Your task to perform on an android device: choose inbox layout in the gmail app Image 0: 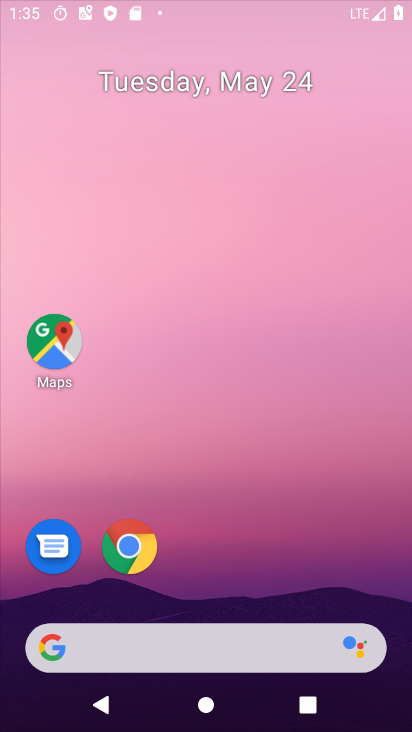
Step 0: drag from (215, 615) to (405, 253)
Your task to perform on an android device: choose inbox layout in the gmail app Image 1: 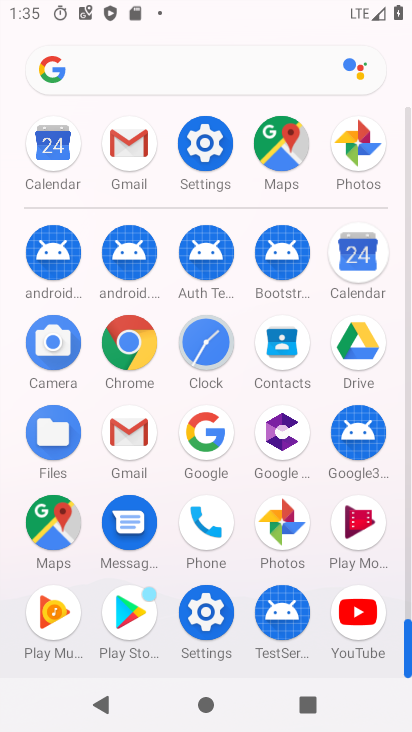
Step 1: click (121, 433)
Your task to perform on an android device: choose inbox layout in the gmail app Image 2: 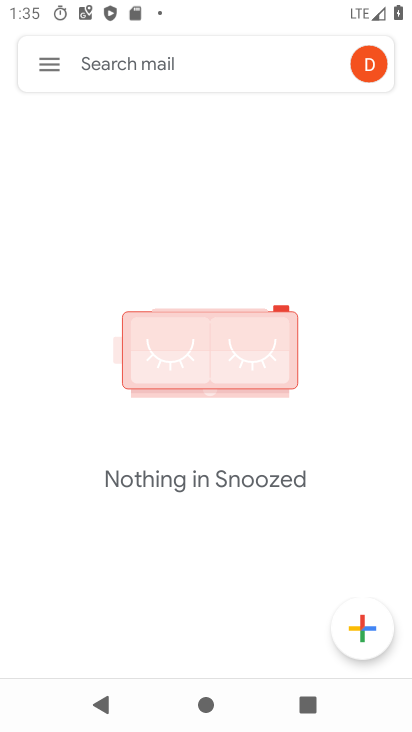
Step 2: click (43, 66)
Your task to perform on an android device: choose inbox layout in the gmail app Image 3: 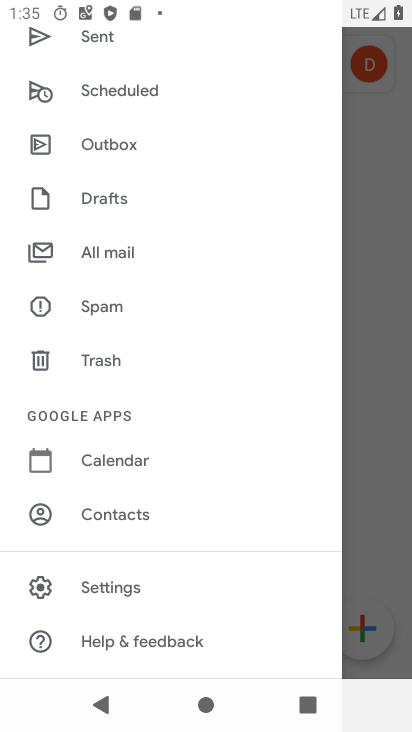
Step 3: drag from (142, 632) to (187, 135)
Your task to perform on an android device: choose inbox layout in the gmail app Image 4: 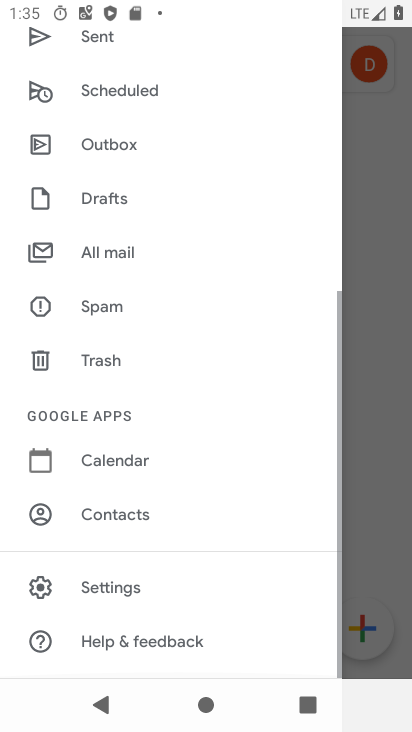
Step 4: drag from (169, 301) to (245, 653)
Your task to perform on an android device: choose inbox layout in the gmail app Image 5: 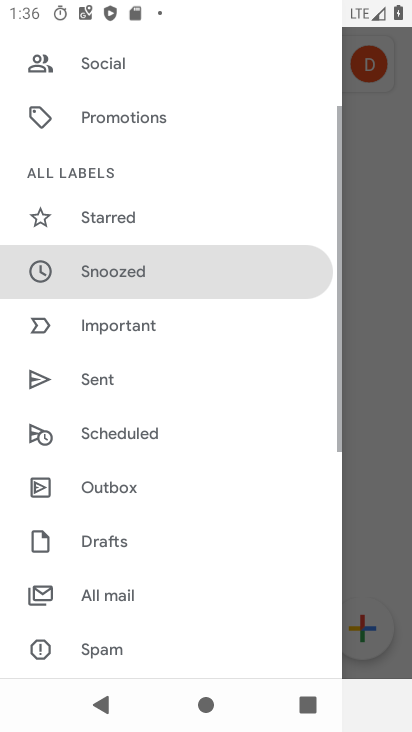
Step 5: drag from (100, 650) to (214, 108)
Your task to perform on an android device: choose inbox layout in the gmail app Image 6: 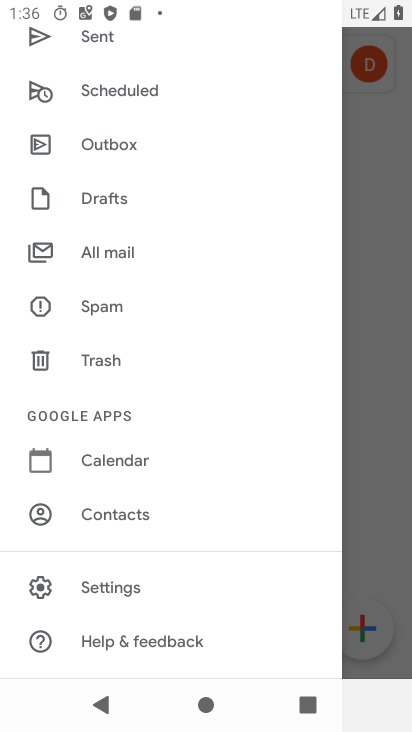
Step 6: drag from (157, 189) to (249, 701)
Your task to perform on an android device: choose inbox layout in the gmail app Image 7: 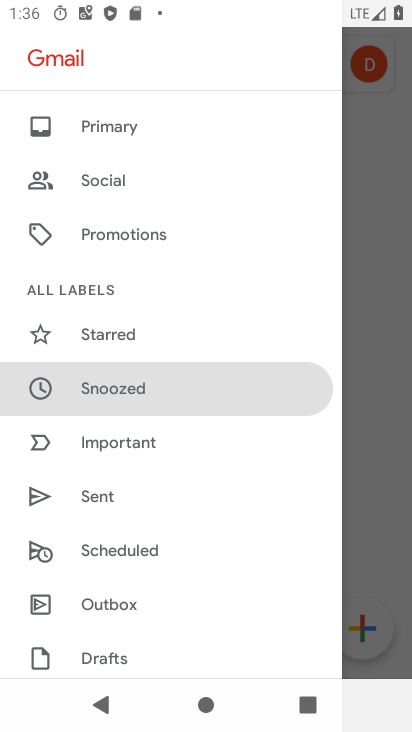
Step 7: click (101, 126)
Your task to perform on an android device: choose inbox layout in the gmail app Image 8: 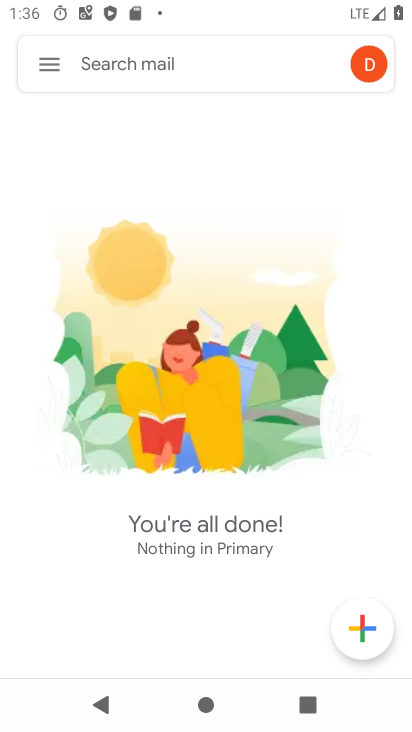
Step 8: task complete